Your task to perform on an android device: see sites visited before in the chrome app Image 0: 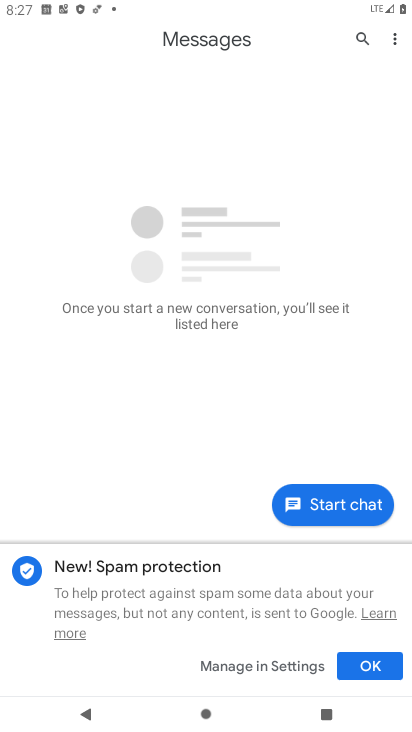
Step 0: press home button
Your task to perform on an android device: see sites visited before in the chrome app Image 1: 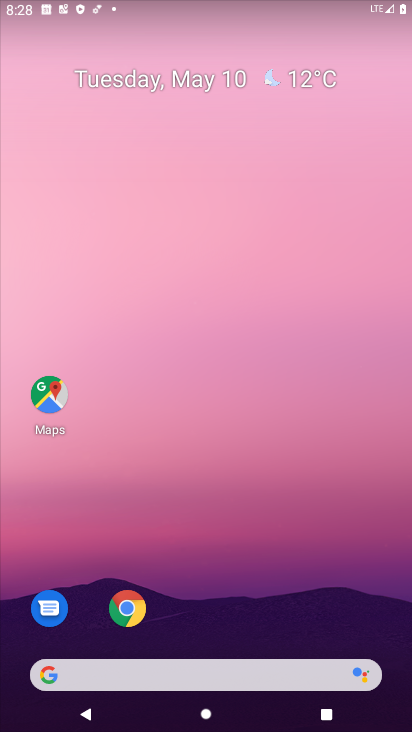
Step 1: drag from (245, 675) to (353, 233)
Your task to perform on an android device: see sites visited before in the chrome app Image 2: 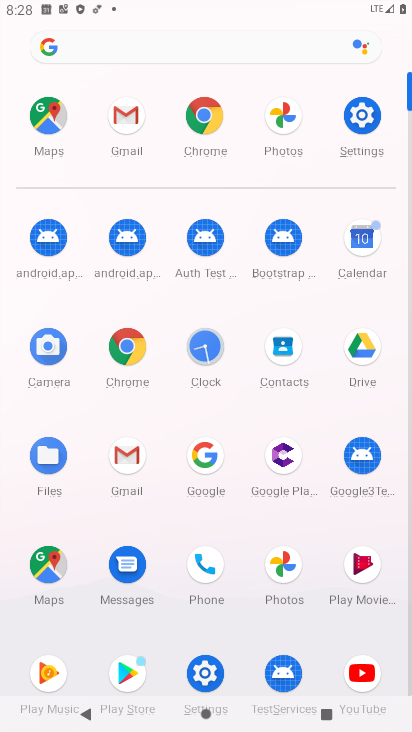
Step 2: click (212, 120)
Your task to perform on an android device: see sites visited before in the chrome app Image 3: 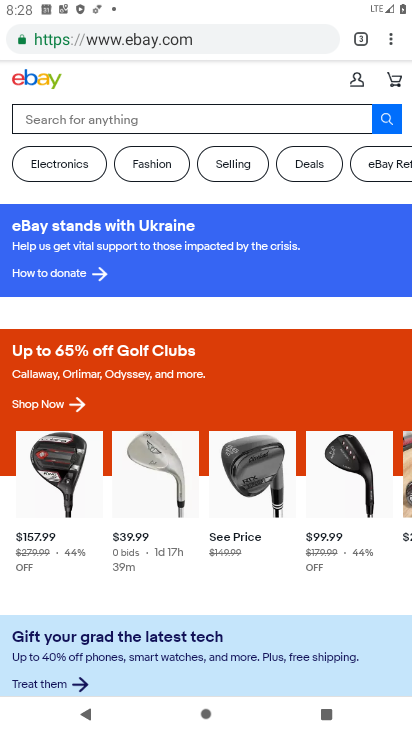
Step 3: task complete